Your task to perform on an android device: What is the news today? Image 0: 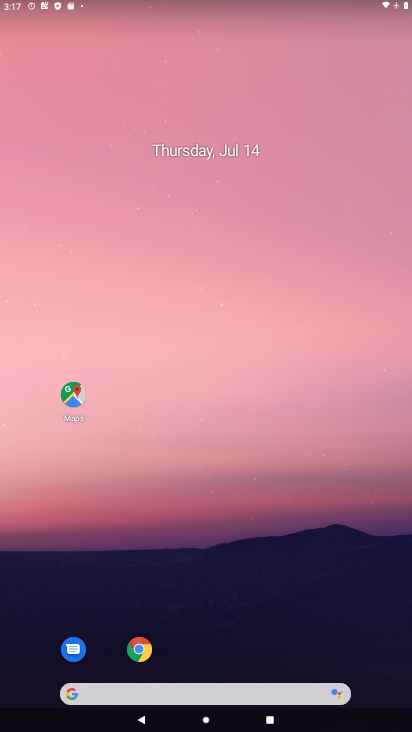
Step 0: click (176, 692)
Your task to perform on an android device: What is the news today? Image 1: 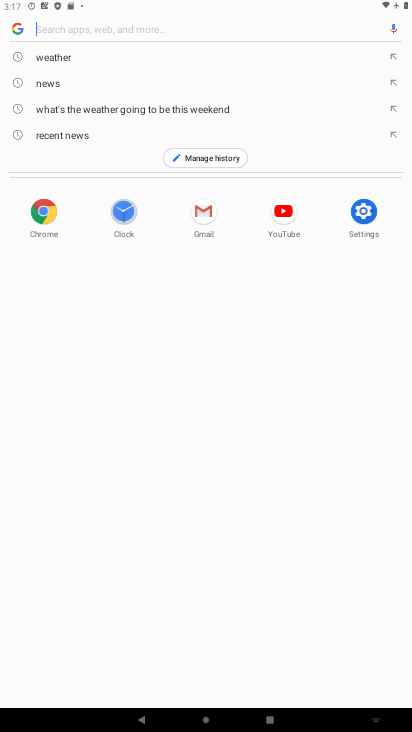
Step 1: type "news today?"
Your task to perform on an android device: What is the news today? Image 2: 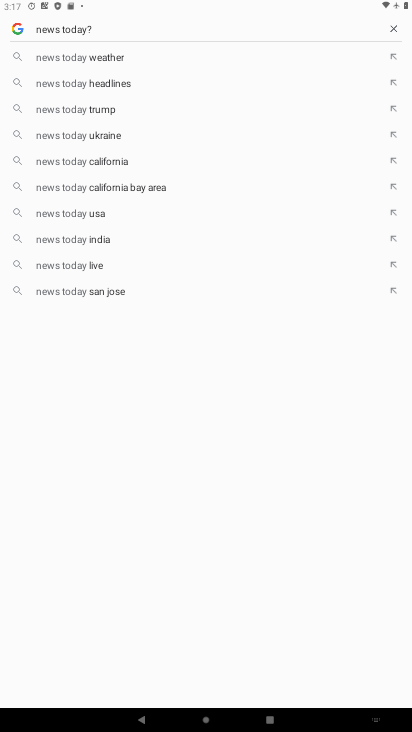
Step 2: click (62, 90)
Your task to perform on an android device: What is the news today? Image 3: 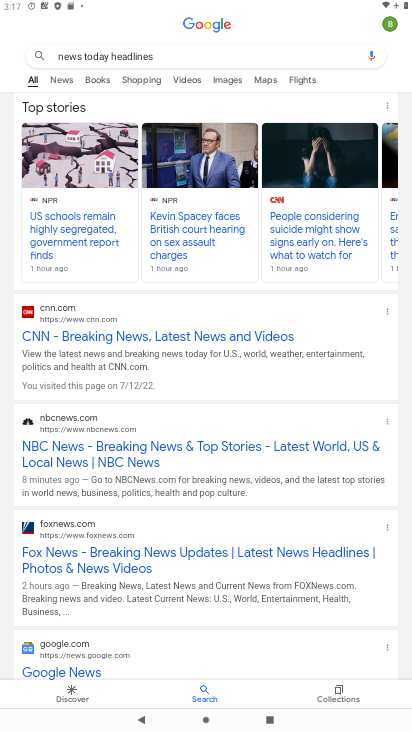
Step 3: task complete